Your task to perform on an android device: set the stopwatch Image 0: 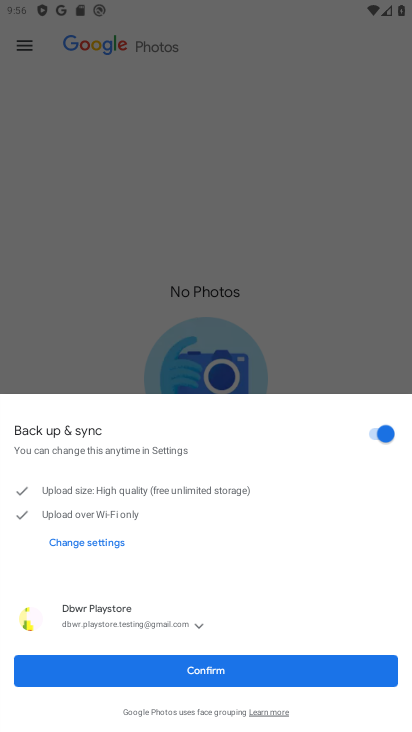
Step 0: press home button
Your task to perform on an android device: set the stopwatch Image 1: 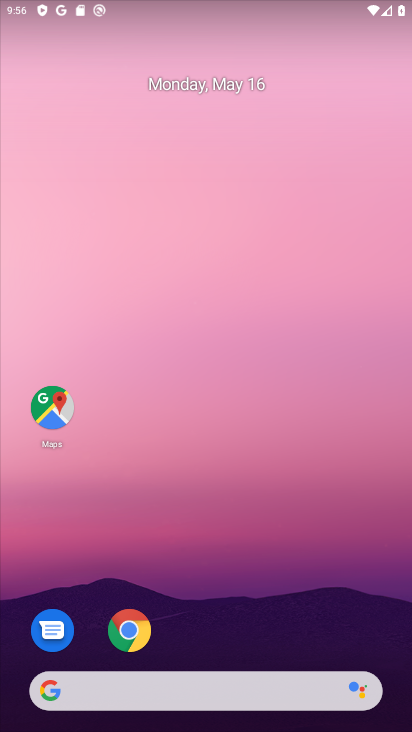
Step 1: drag from (220, 642) to (296, 27)
Your task to perform on an android device: set the stopwatch Image 2: 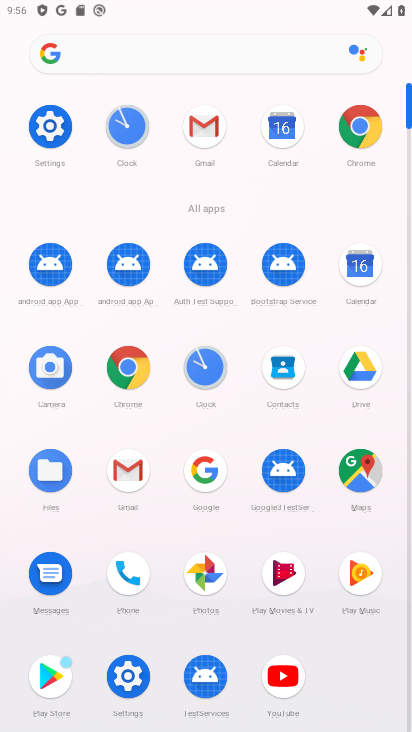
Step 2: click (194, 375)
Your task to perform on an android device: set the stopwatch Image 3: 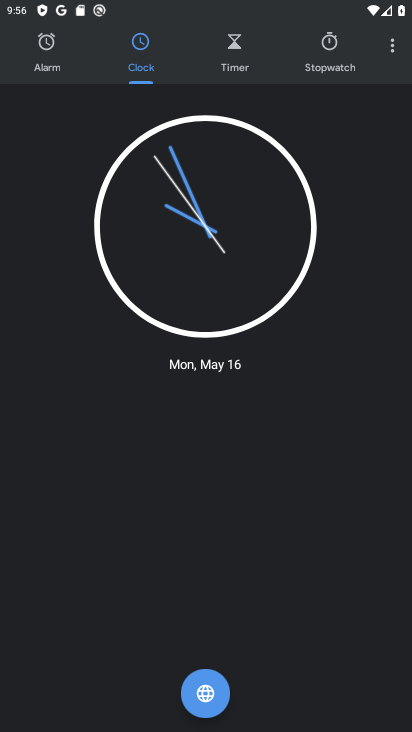
Step 3: click (330, 66)
Your task to perform on an android device: set the stopwatch Image 4: 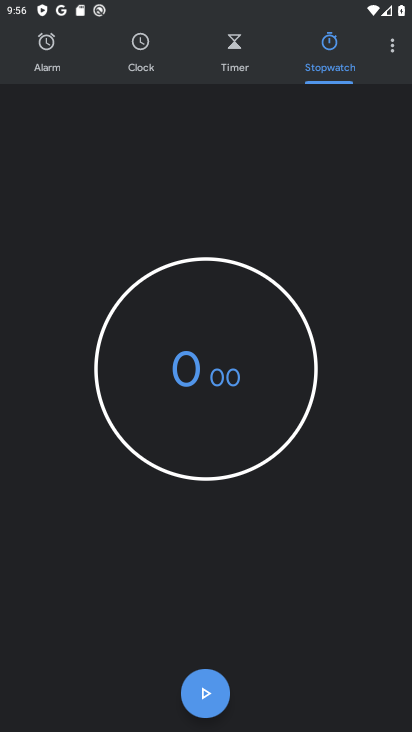
Step 4: click (211, 689)
Your task to perform on an android device: set the stopwatch Image 5: 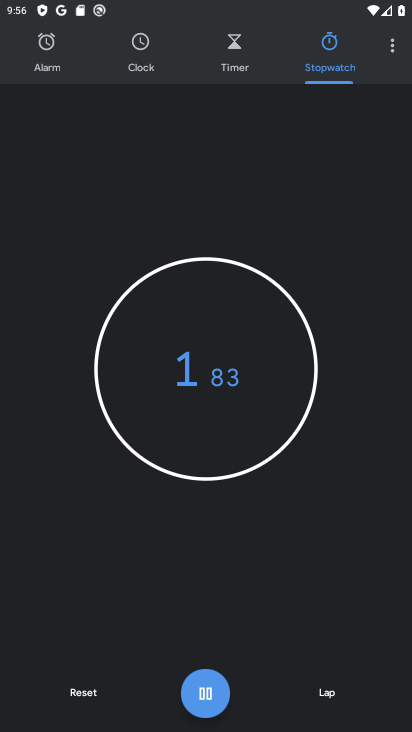
Step 5: task complete